Your task to perform on an android device: remove spam from my inbox in the gmail app Image 0: 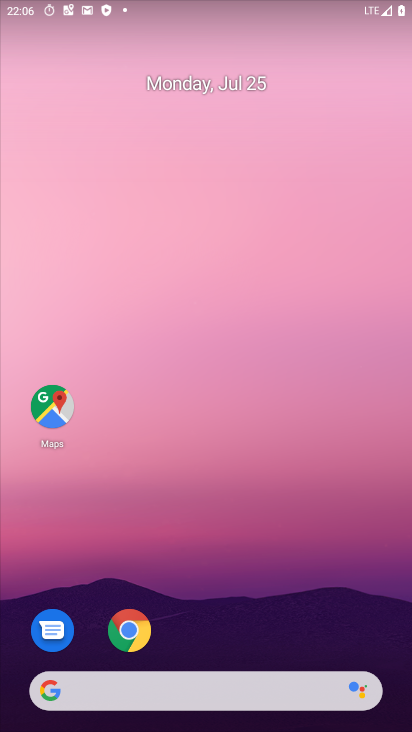
Step 0: press home button
Your task to perform on an android device: remove spam from my inbox in the gmail app Image 1: 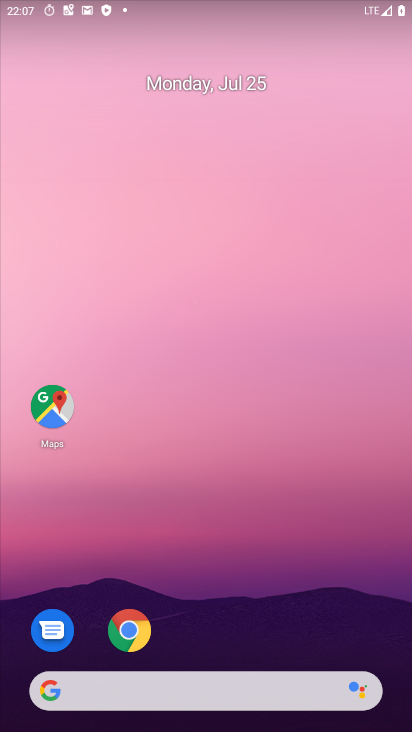
Step 1: drag from (214, 652) to (329, 76)
Your task to perform on an android device: remove spam from my inbox in the gmail app Image 2: 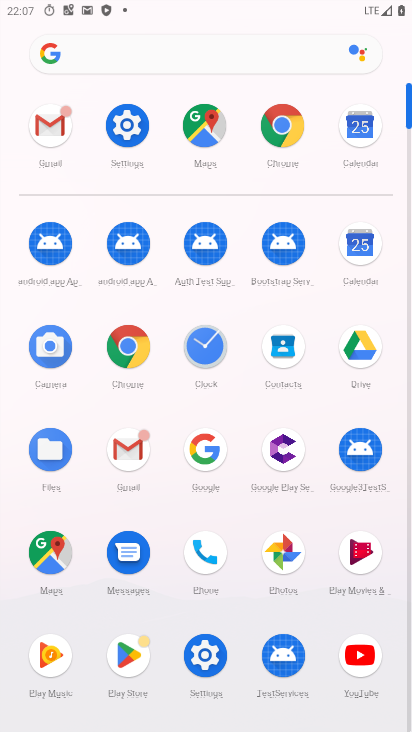
Step 2: click (48, 128)
Your task to perform on an android device: remove spam from my inbox in the gmail app Image 3: 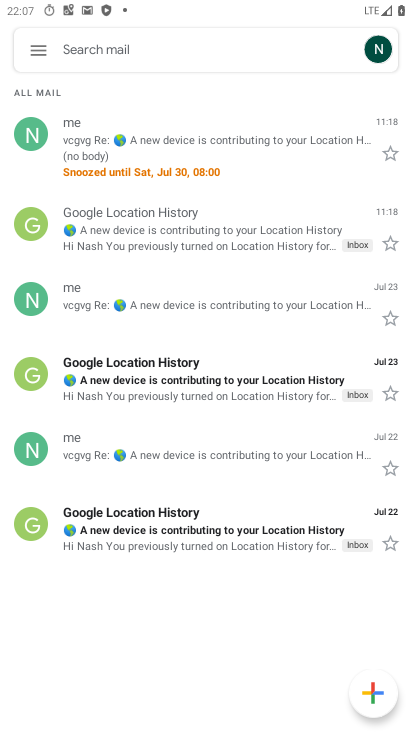
Step 3: click (41, 46)
Your task to perform on an android device: remove spam from my inbox in the gmail app Image 4: 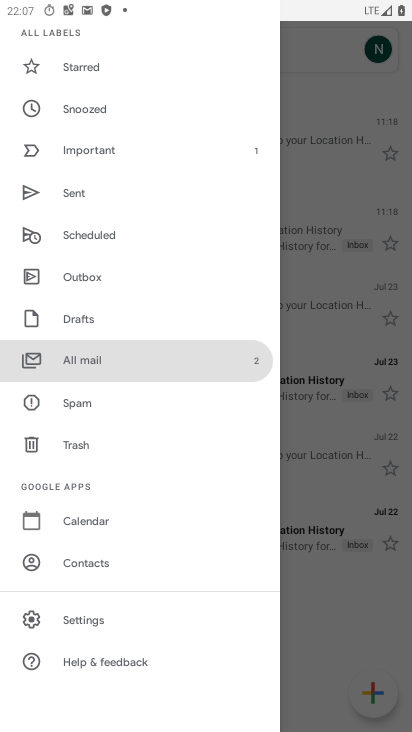
Step 4: click (85, 411)
Your task to perform on an android device: remove spam from my inbox in the gmail app Image 5: 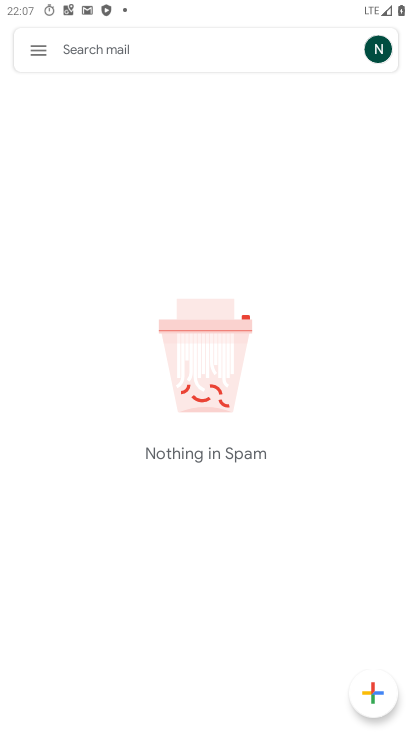
Step 5: task complete